Your task to perform on an android device: Check the weather Image 0: 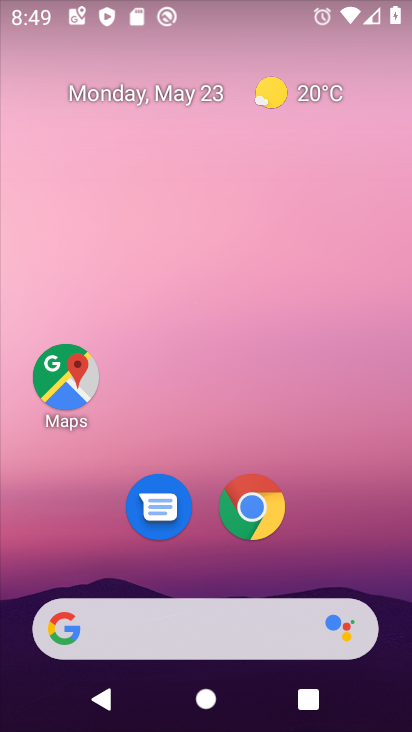
Step 0: click (307, 98)
Your task to perform on an android device: Check the weather Image 1: 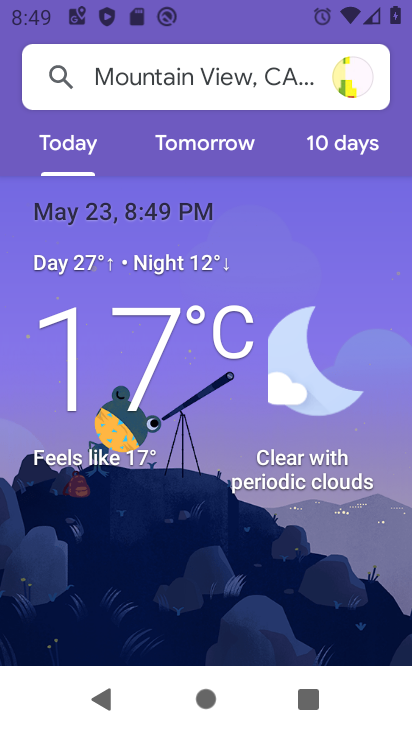
Step 1: task complete